Your task to perform on an android device: find which apps use the phone's location Image 0: 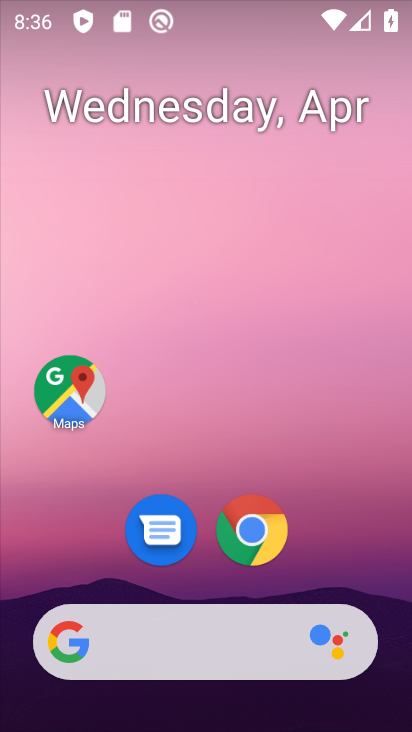
Step 0: drag from (349, 557) to (299, 191)
Your task to perform on an android device: find which apps use the phone's location Image 1: 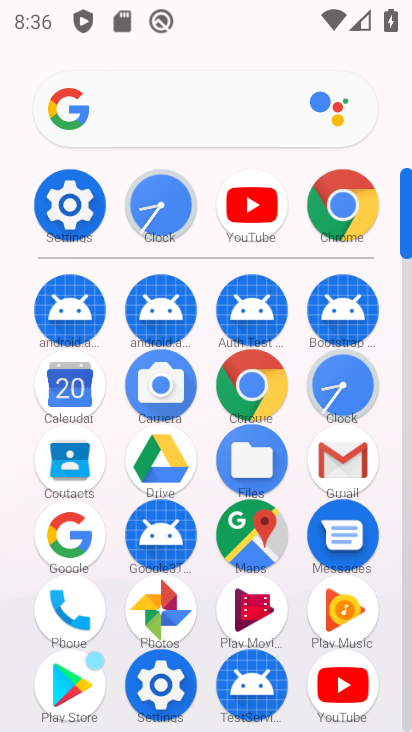
Step 1: click (58, 198)
Your task to perform on an android device: find which apps use the phone's location Image 2: 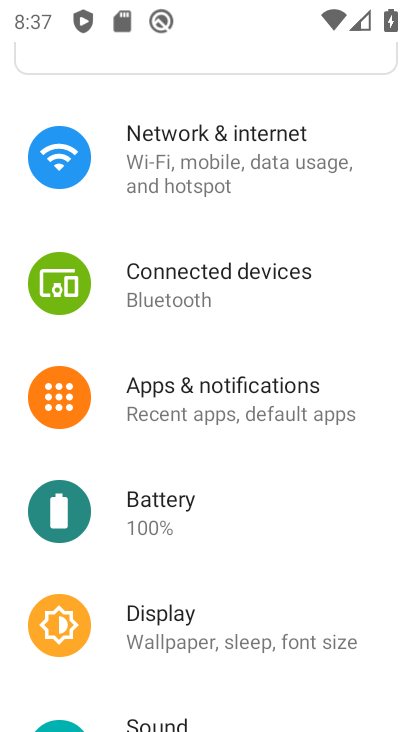
Step 2: drag from (334, 590) to (269, 55)
Your task to perform on an android device: find which apps use the phone's location Image 3: 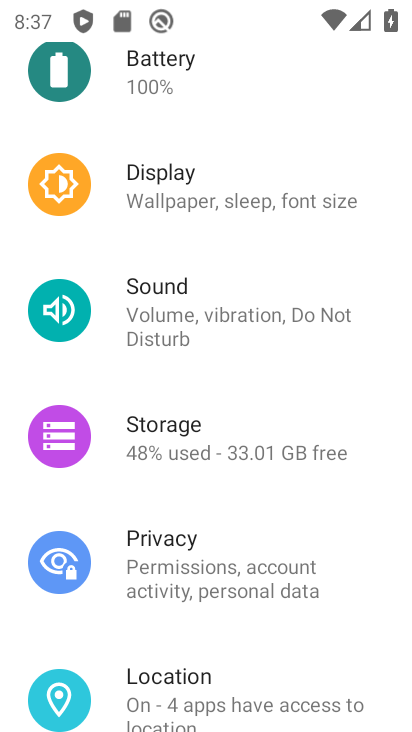
Step 3: click (288, 713)
Your task to perform on an android device: find which apps use the phone's location Image 4: 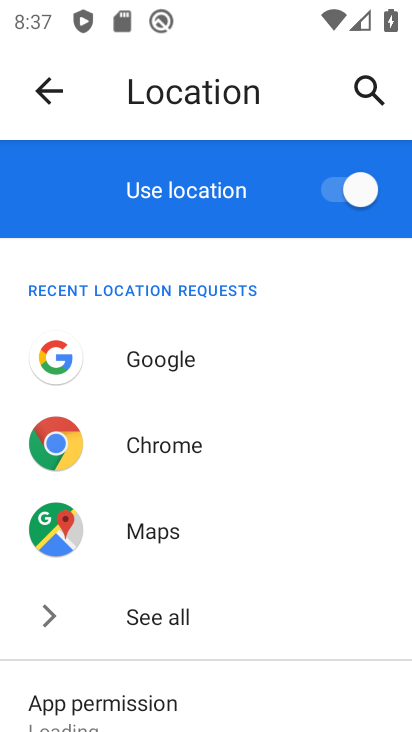
Step 4: drag from (288, 713) to (268, 282)
Your task to perform on an android device: find which apps use the phone's location Image 5: 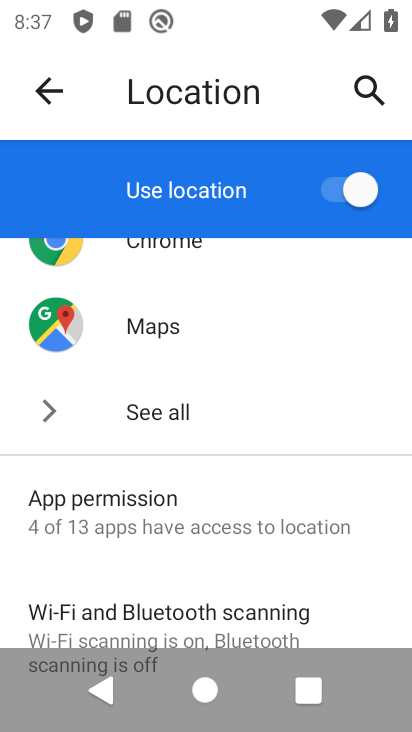
Step 5: click (229, 506)
Your task to perform on an android device: find which apps use the phone's location Image 6: 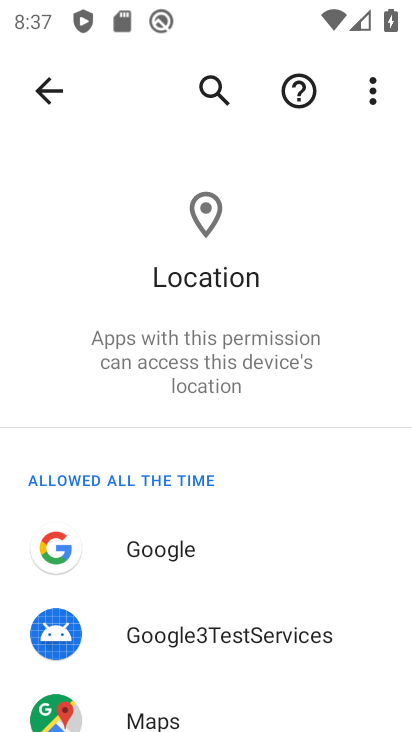
Step 6: task complete